Your task to perform on an android device: change text size in settings app Image 0: 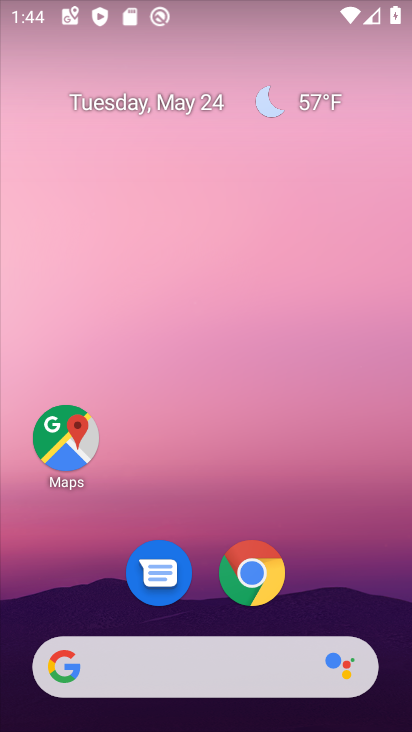
Step 0: drag from (335, 636) to (349, 181)
Your task to perform on an android device: change text size in settings app Image 1: 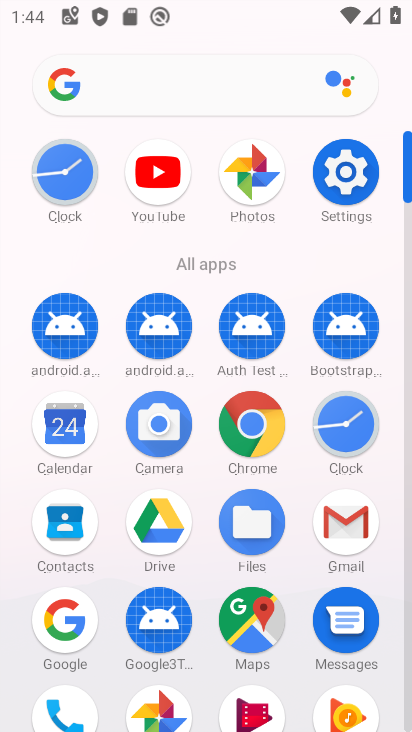
Step 1: drag from (298, 600) to (330, 320)
Your task to perform on an android device: change text size in settings app Image 2: 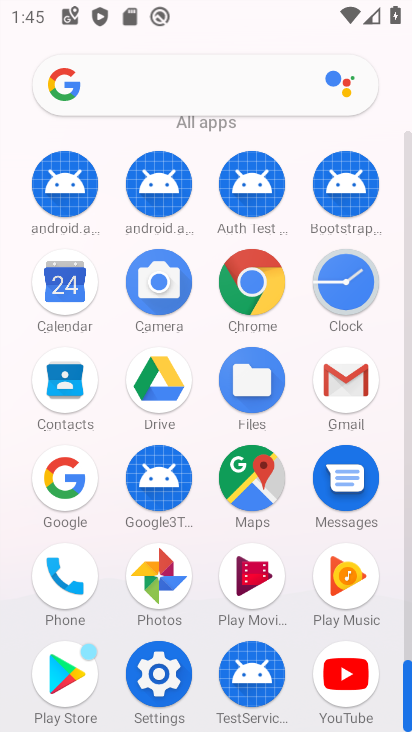
Step 2: click (150, 667)
Your task to perform on an android device: change text size in settings app Image 3: 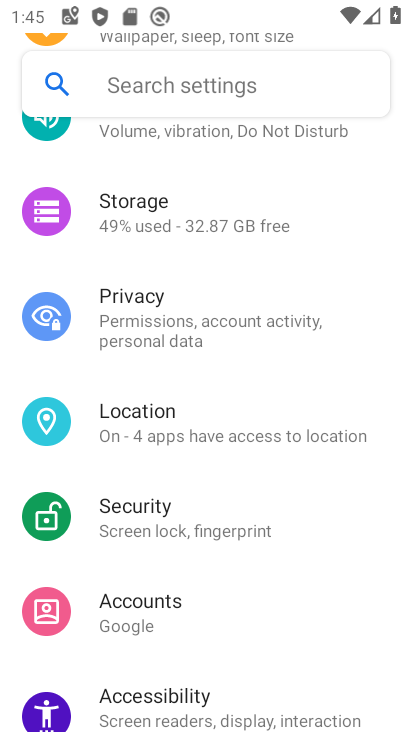
Step 3: drag from (215, 246) to (239, 525)
Your task to perform on an android device: change text size in settings app Image 4: 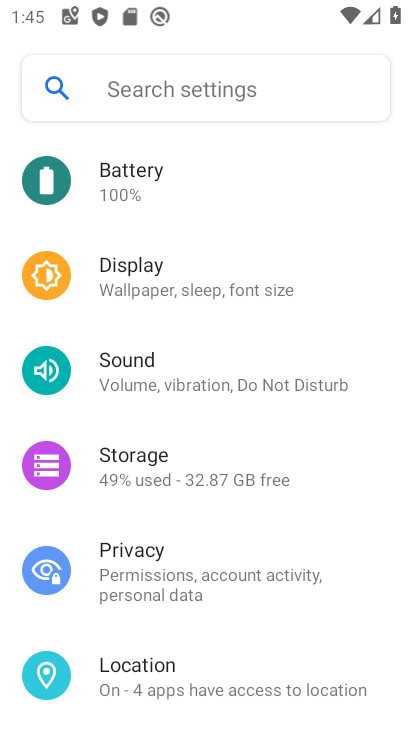
Step 4: click (183, 278)
Your task to perform on an android device: change text size in settings app Image 5: 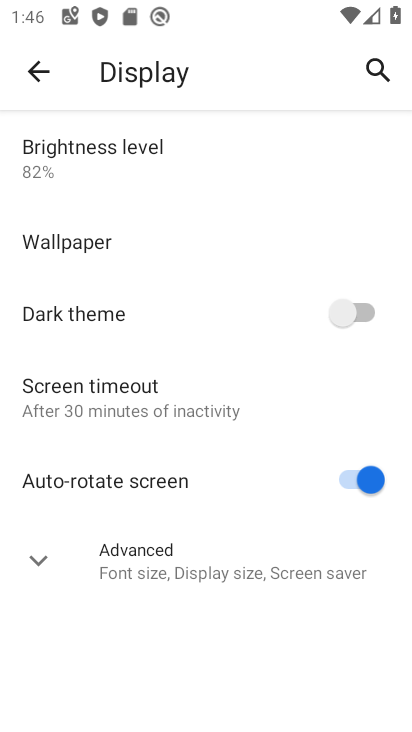
Step 5: click (147, 560)
Your task to perform on an android device: change text size in settings app Image 6: 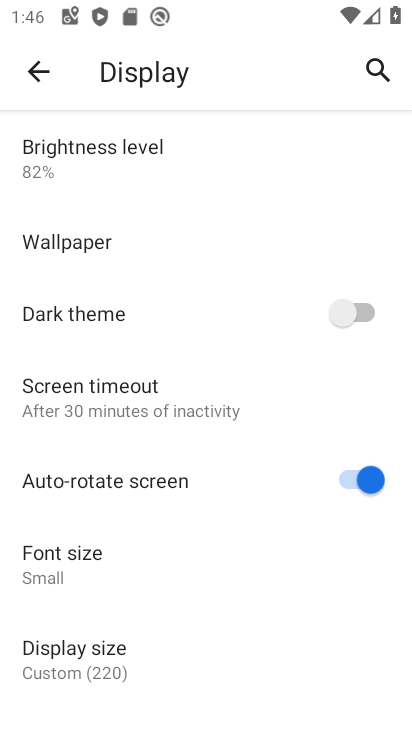
Step 6: click (109, 557)
Your task to perform on an android device: change text size in settings app Image 7: 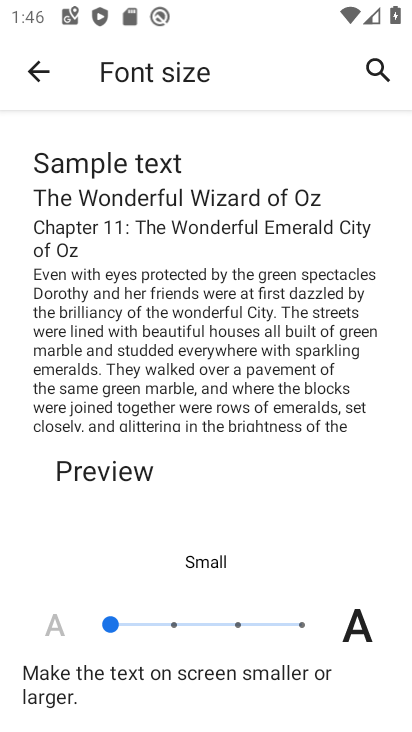
Step 7: task complete